Your task to perform on an android device: change the clock style Image 0: 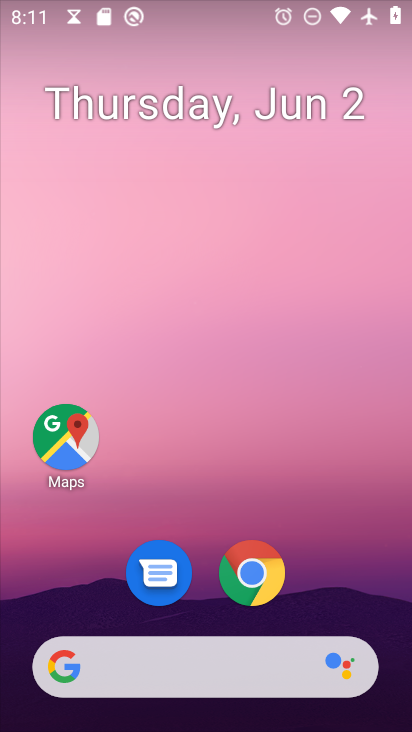
Step 0: press home button
Your task to perform on an android device: change the clock style Image 1: 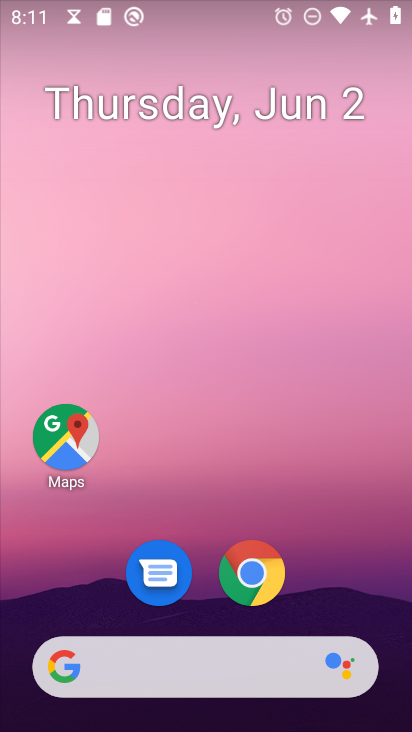
Step 1: drag from (210, 674) to (393, 47)
Your task to perform on an android device: change the clock style Image 2: 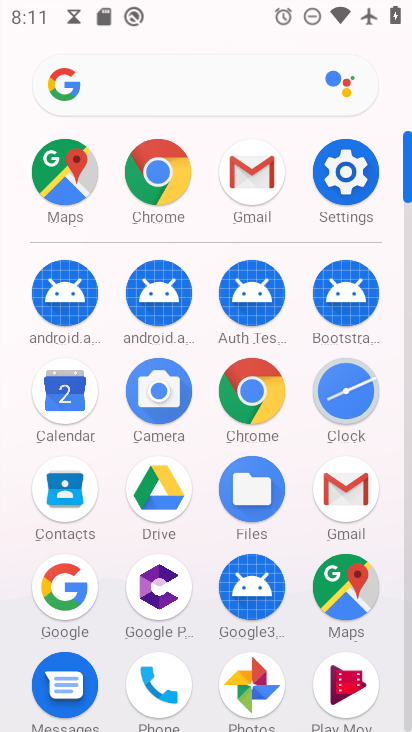
Step 2: click (341, 405)
Your task to perform on an android device: change the clock style Image 3: 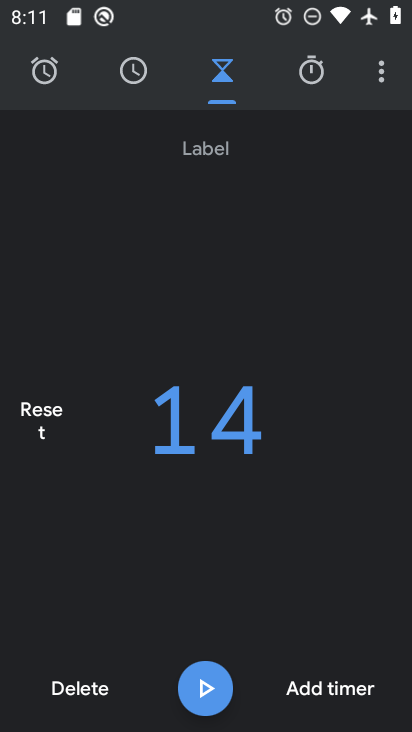
Step 3: click (383, 76)
Your task to perform on an android device: change the clock style Image 4: 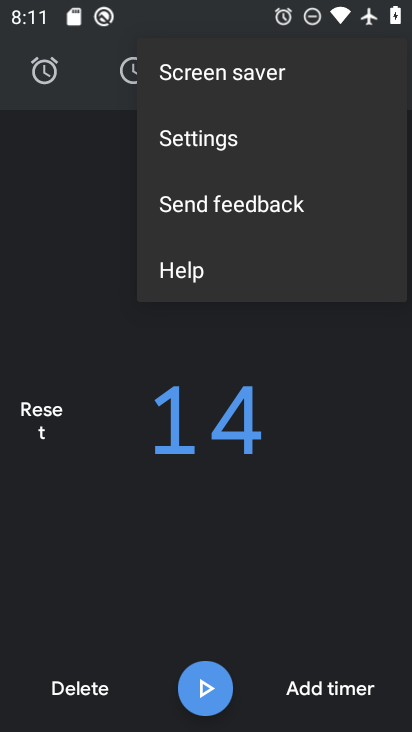
Step 4: click (229, 142)
Your task to perform on an android device: change the clock style Image 5: 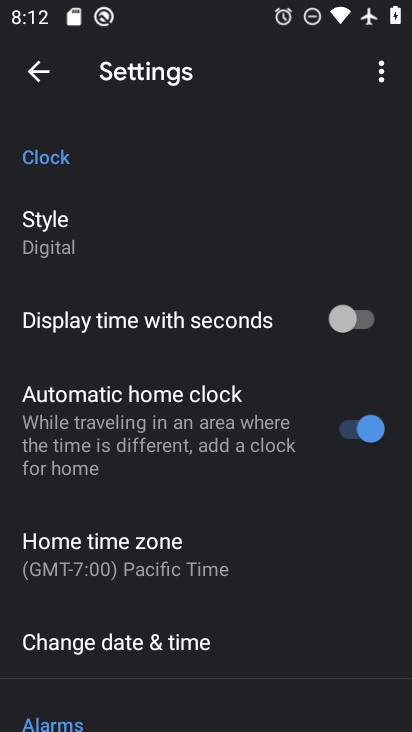
Step 5: click (39, 234)
Your task to perform on an android device: change the clock style Image 6: 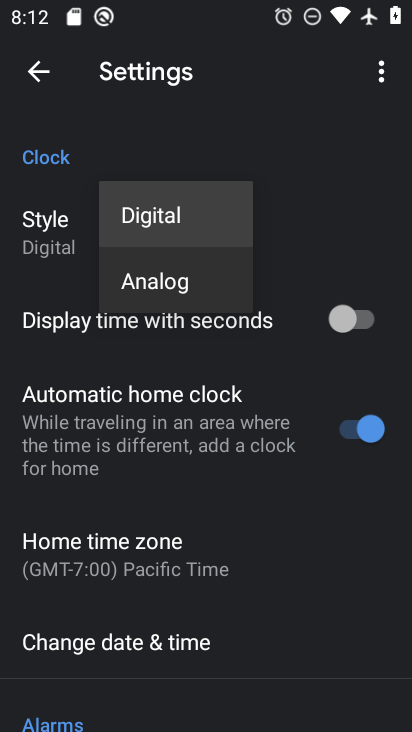
Step 6: click (150, 279)
Your task to perform on an android device: change the clock style Image 7: 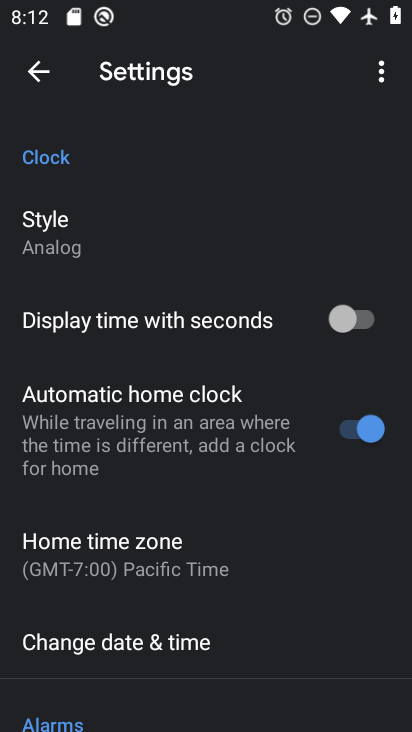
Step 7: task complete